Your task to perform on an android device: set the timer Image 0: 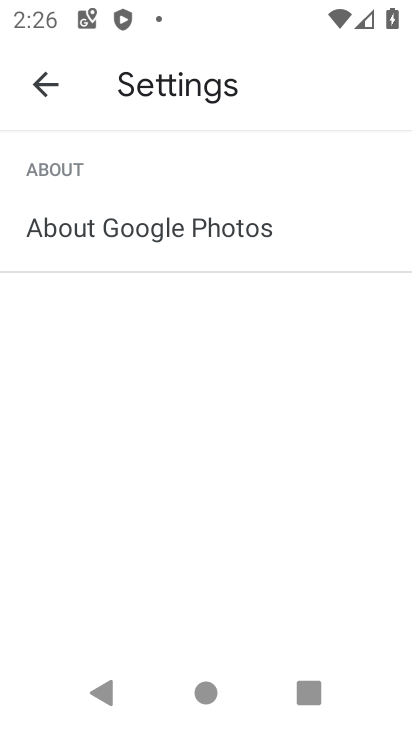
Step 0: press home button
Your task to perform on an android device: set the timer Image 1: 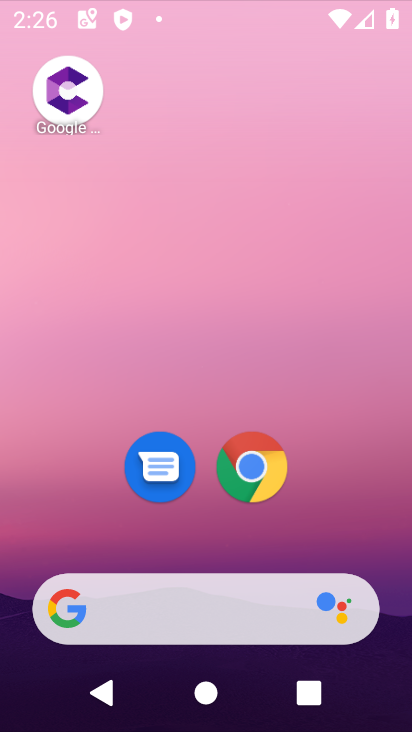
Step 1: drag from (234, 619) to (237, 23)
Your task to perform on an android device: set the timer Image 2: 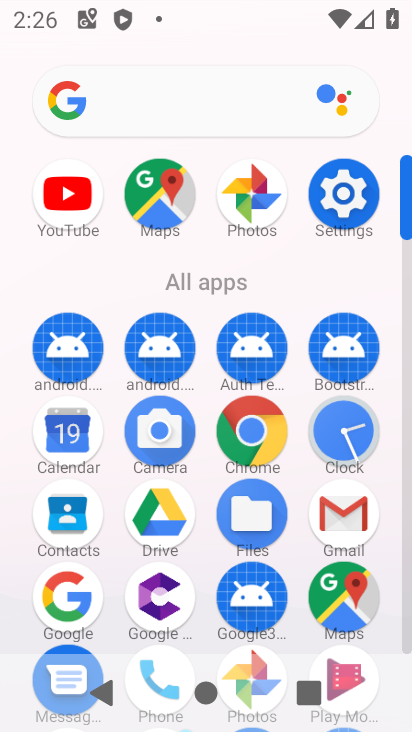
Step 2: drag from (193, 634) to (220, 151)
Your task to perform on an android device: set the timer Image 3: 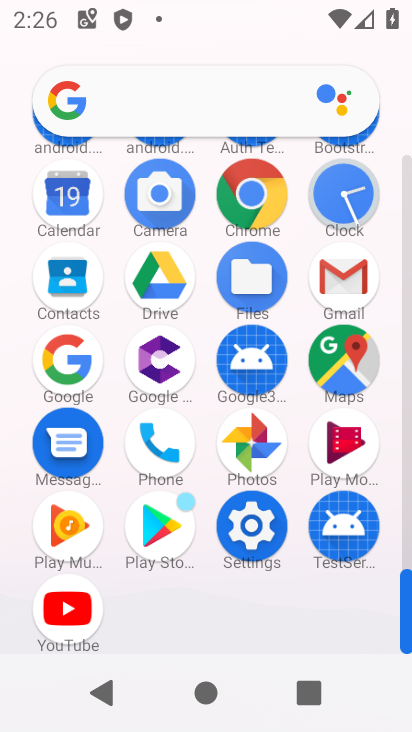
Step 3: click (349, 191)
Your task to perform on an android device: set the timer Image 4: 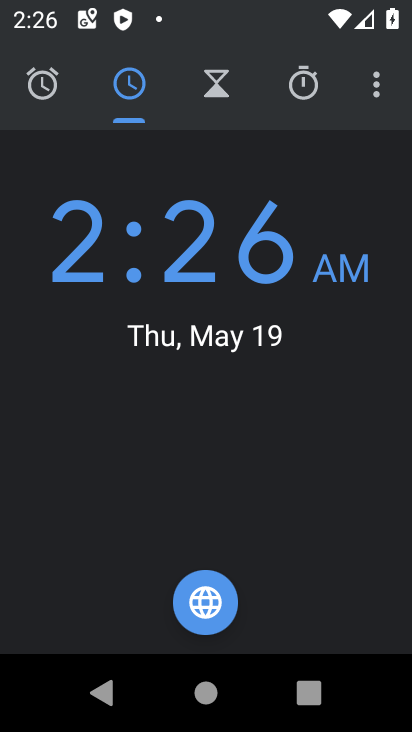
Step 4: click (381, 86)
Your task to perform on an android device: set the timer Image 5: 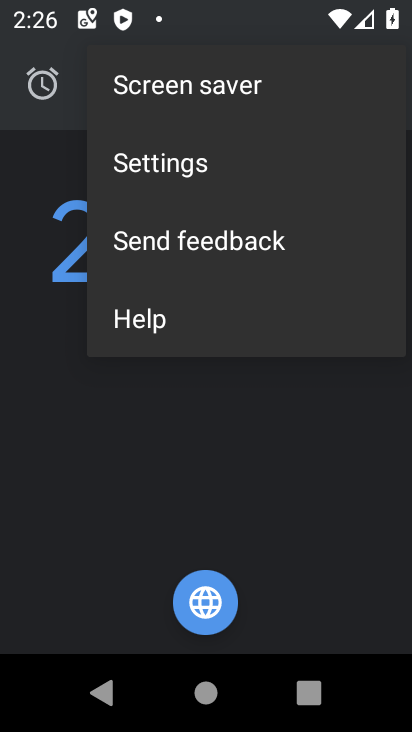
Step 5: click (175, 146)
Your task to perform on an android device: set the timer Image 6: 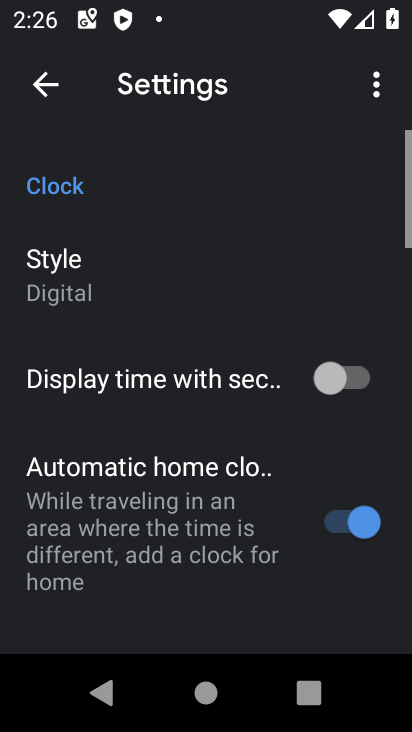
Step 6: drag from (223, 542) to (204, 324)
Your task to perform on an android device: set the timer Image 7: 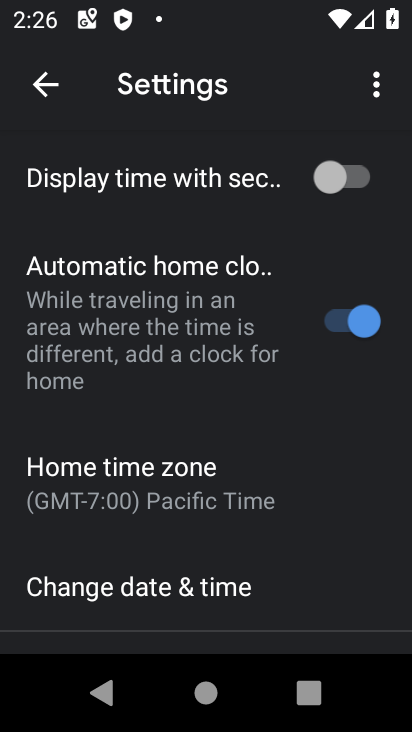
Step 7: drag from (237, 537) to (241, 449)
Your task to perform on an android device: set the timer Image 8: 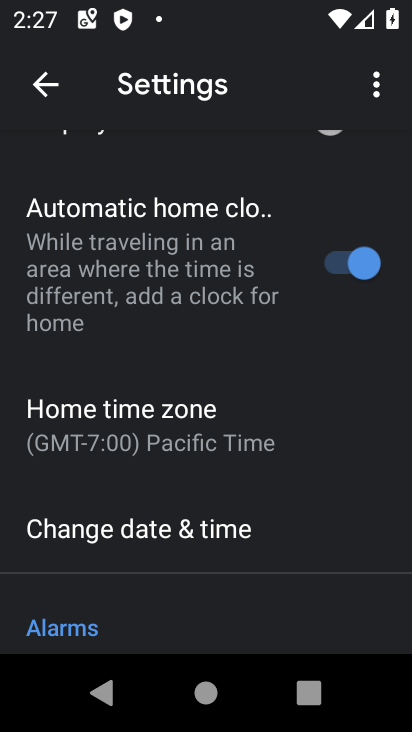
Step 8: drag from (264, 633) to (268, 310)
Your task to perform on an android device: set the timer Image 9: 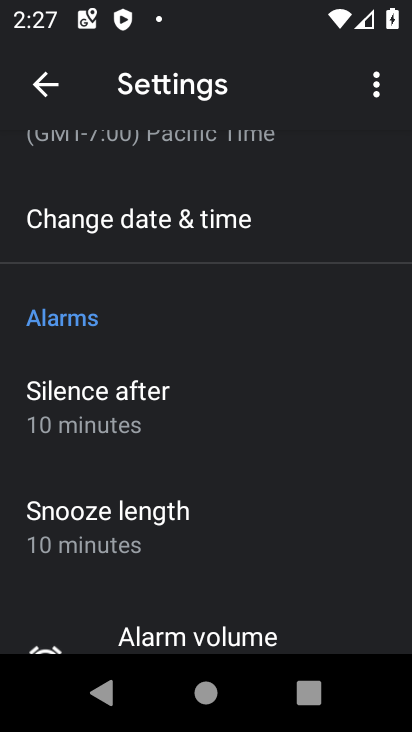
Step 9: drag from (254, 250) to (228, 512)
Your task to perform on an android device: set the timer Image 10: 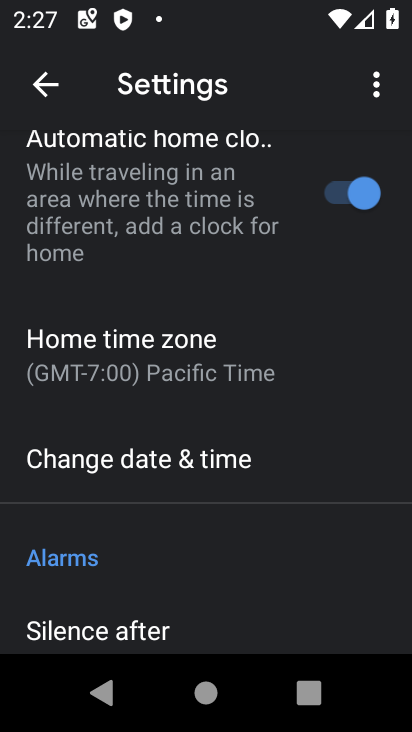
Step 10: drag from (209, 554) to (221, 305)
Your task to perform on an android device: set the timer Image 11: 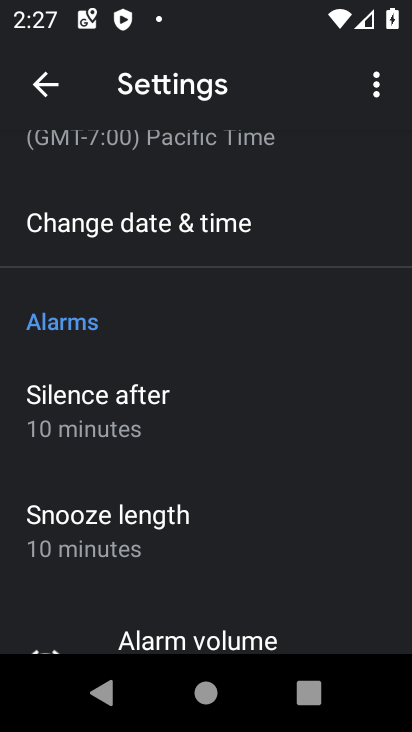
Step 11: drag from (246, 142) to (287, 411)
Your task to perform on an android device: set the timer Image 12: 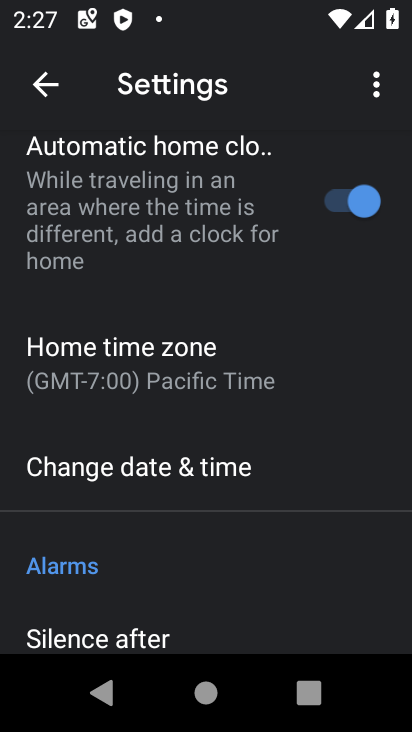
Step 12: drag from (259, 218) to (293, 604)
Your task to perform on an android device: set the timer Image 13: 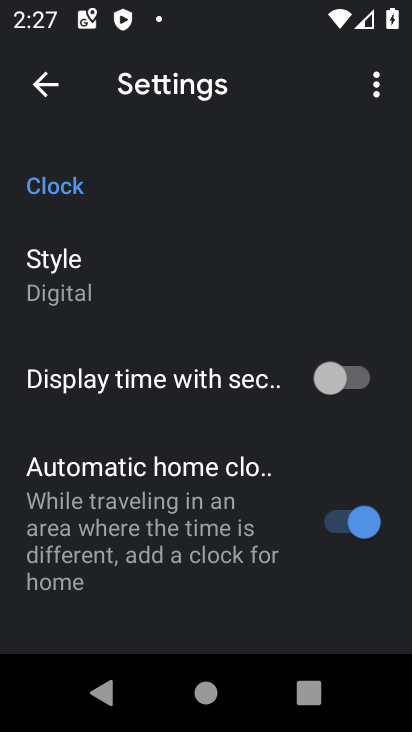
Step 13: drag from (185, 274) to (266, 506)
Your task to perform on an android device: set the timer Image 14: 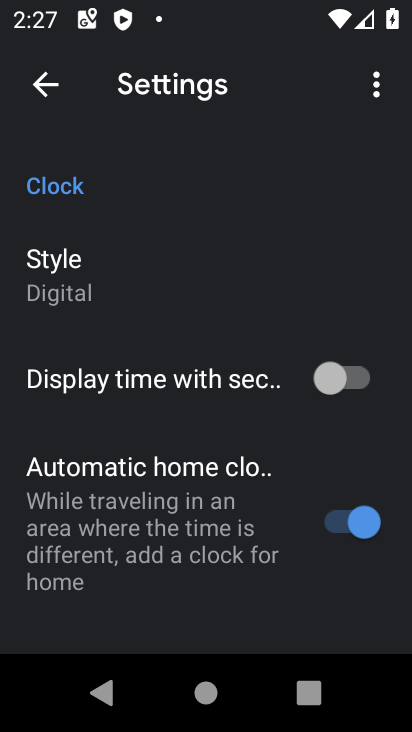
Step 14: drag from (198, 613) to (283, 83)
Your task to perform on an android device: set the timer Image 15: 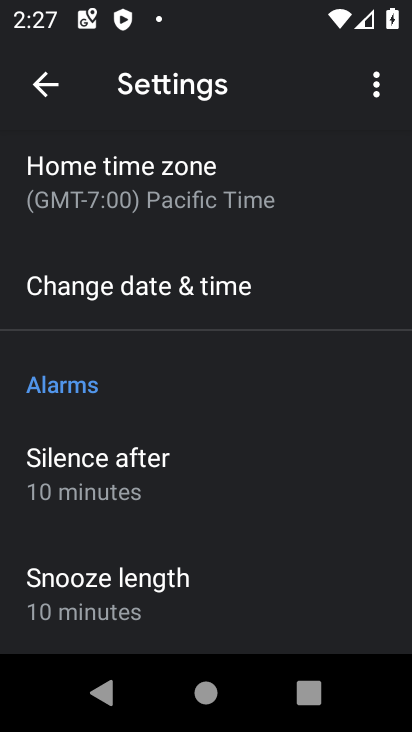
Step 15: drag from (196, 543) to (250, 180)
Your task to perform on an android device: set the timer Image 16: 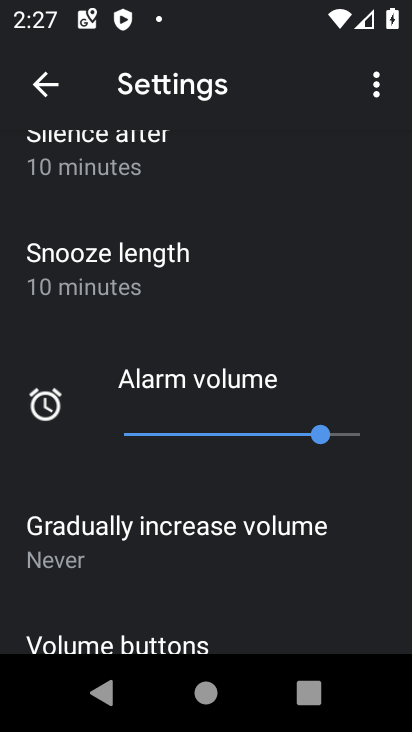
Step 16: drag from (195, 517) to (270, 214)
Your task to perform on an android device: set the timer Image 17: 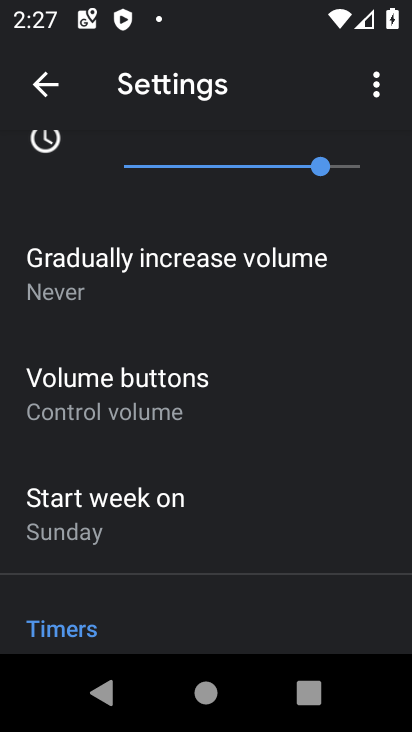
Step 17: drag from (144, 577) to (190, 194)
Your task to perform on an android device: set the timer Image 18: 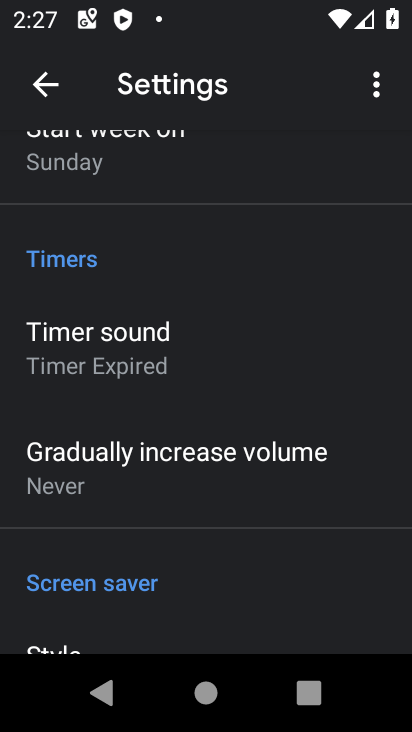
Step 18: click (62, 96)
Your task to perform on an android device: set the timer Image 19: 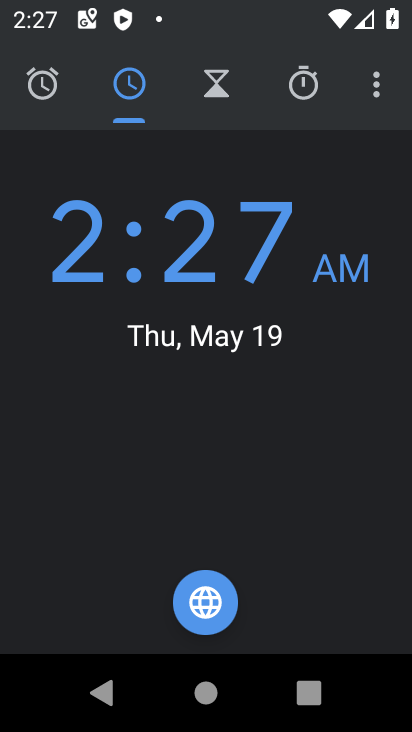
Step 19: click (229, 81)
Your task to perform on an android device: set the timer Image 20: 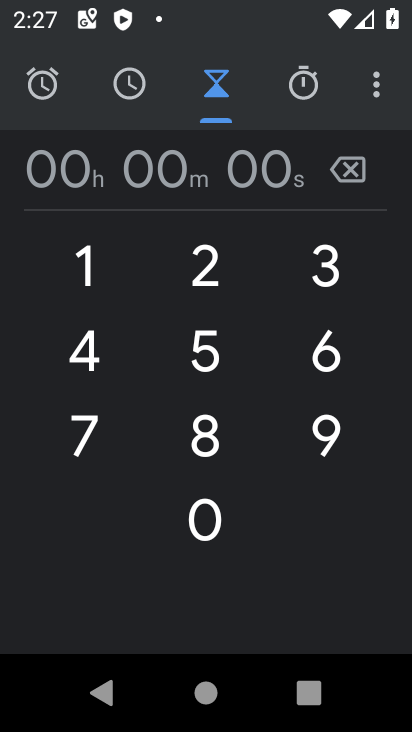
Step 20: click (221, 270)
Your task to perform on an android device: set the timer Image 21: 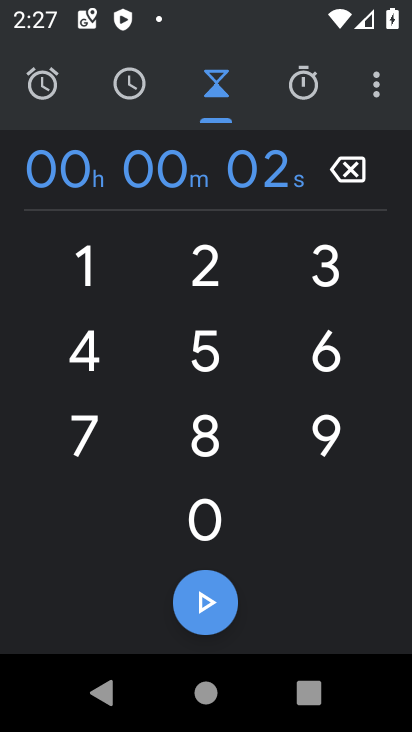
Step 21: click (331, 272)
Your task to perform on an android device: set the timer Image 22: 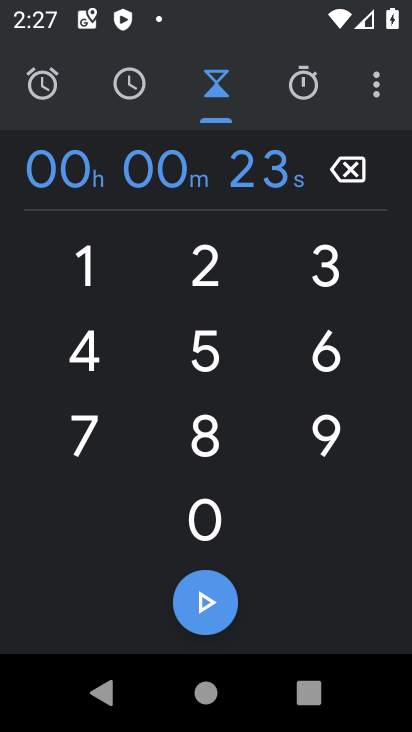
Step 22: click (209, 625)
Your task to perform on an android device: set the timer Image 23: 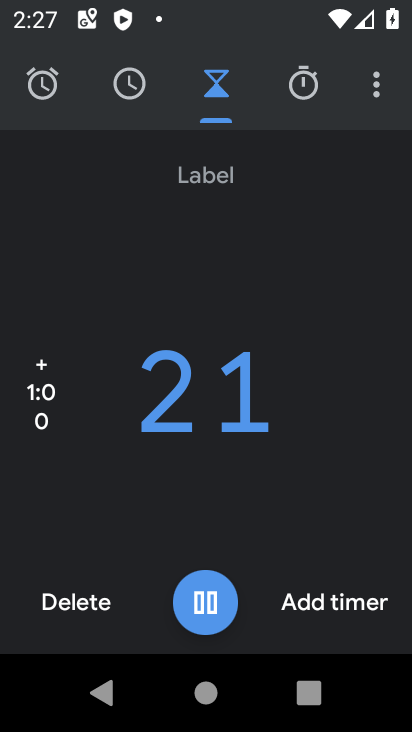
Step 23: task complete